Your task to perform on an android device: Clear the cart on target. Search for usb-b on target, select the first entry, and add it to the cart. Image 0: 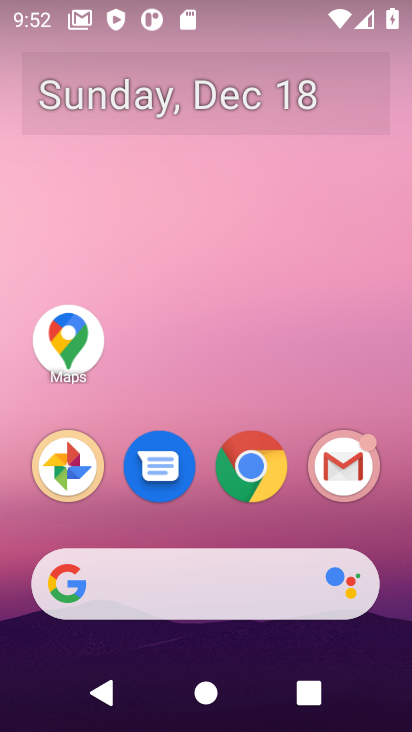
Step 0: task complete